Your task to perform on an android device: see sites visited before in the chrome app Image 0: 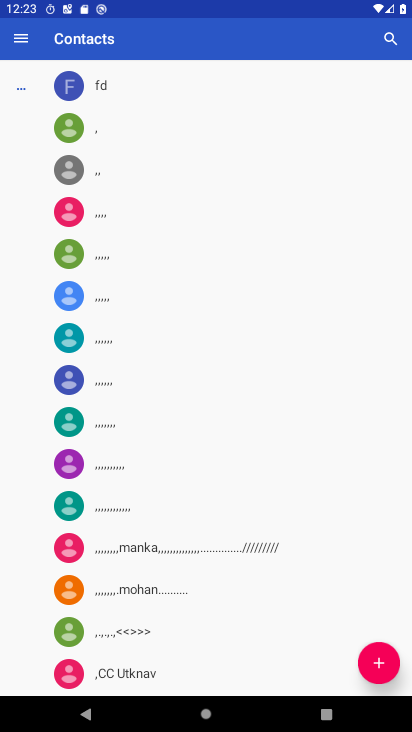
Step 0: press home button
Your task to perform on an android device: see sites visited before in the chrome app Image 1: 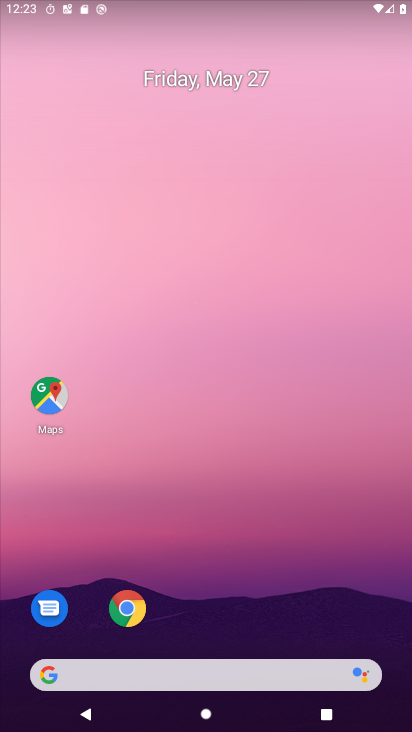
Step 1: click (118, 610)
Your task to perform on an android device: see sites visited before in the chrome app Image 2: 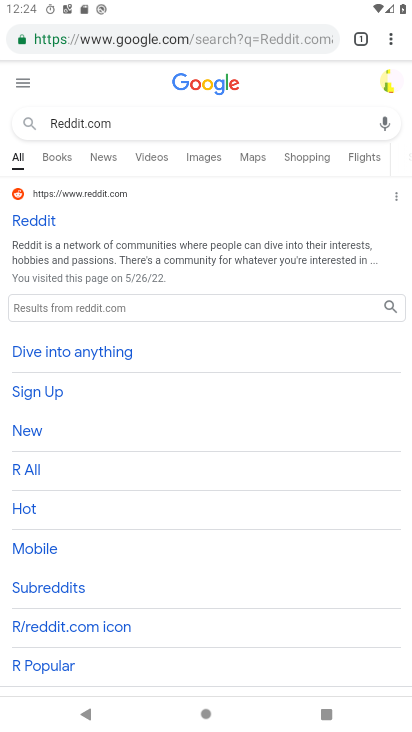
Step 2: click (394, 39)
Your task to perform on an android device: see sites visited before in the chrome app Image 3: 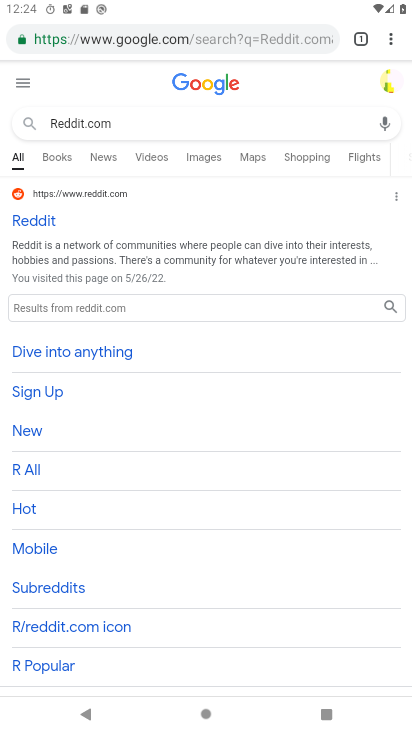
Step 3: click (390, 43)
Your task to perform on an android device: see sites visited before in the chrome app Image 4: 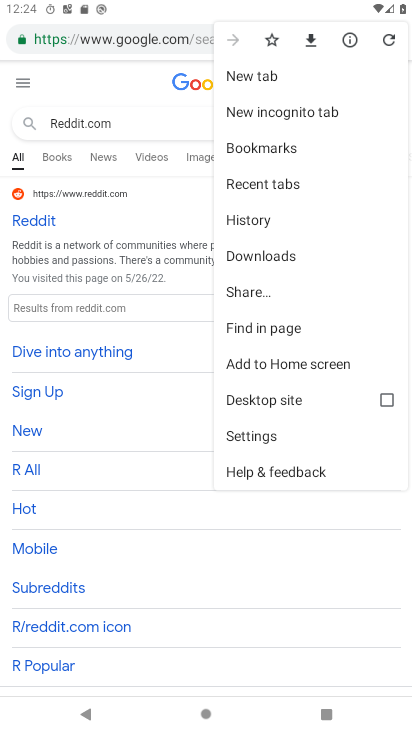
Step 4: click (272, 184)
Your task to perform on an android device: see sites visited before in the chrome app Image 5: 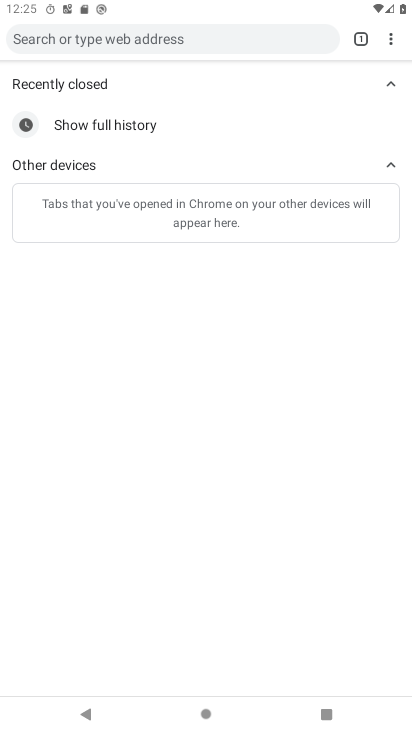
Step 5: task complete